Your task to perform on an android device: see sites visited before in the chrome app Image 0: 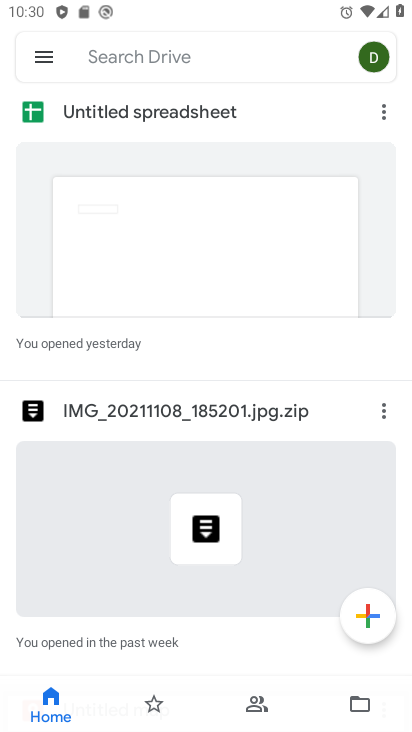
Step 0: press home button
Your task to perform on an android device: see sites visited before in the chrome app Image 1: 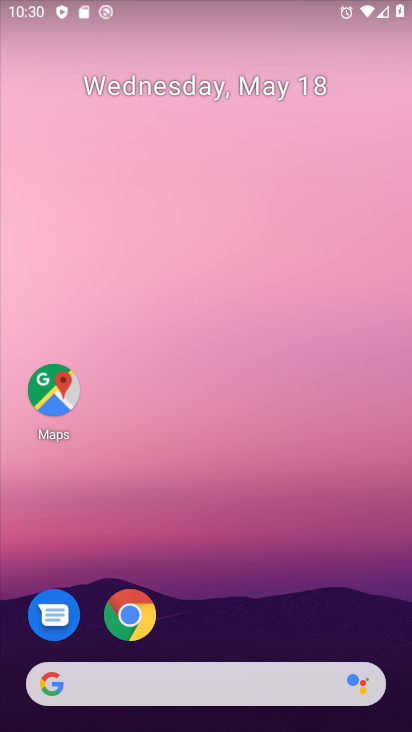
Step 1: click (121, 617)
Your task to perform on an android device: see sites visited before in the chrome app Image 2: 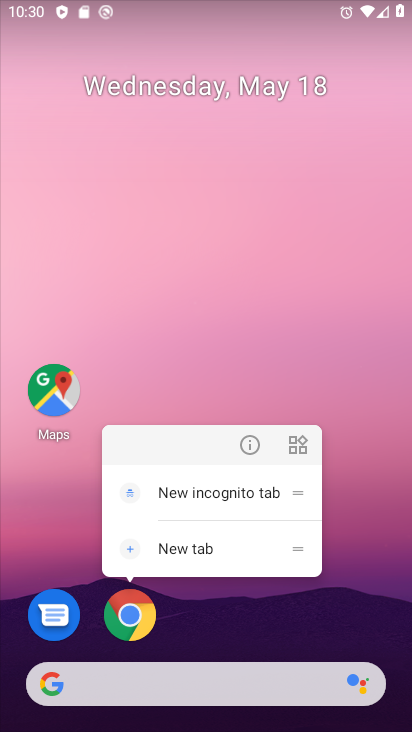
Step 2: click (121, 617)
Your task to perform on an android device: see sites visited before in the chrome app Image 3: 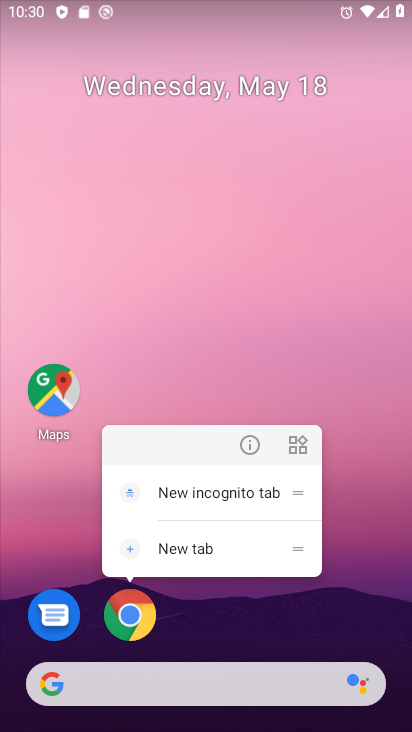
Step 3: click (121, 617)
Your task to perform on an android device: see sites visited before in the chrome app Image 4: 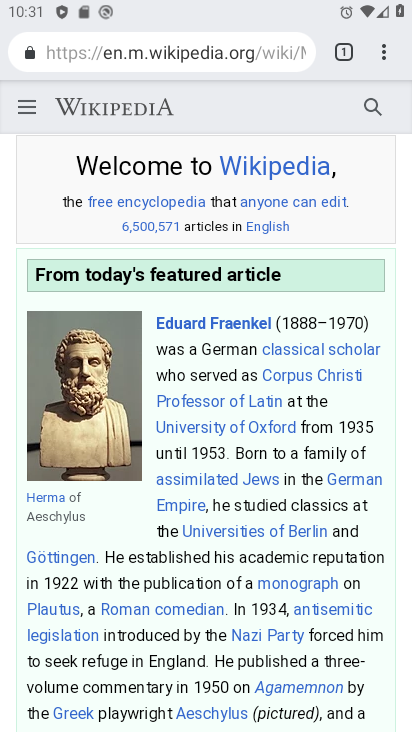
Step 4: click (343, 55)
Your task to perform on an android device: see sites visited before in the chrome app Image 5: 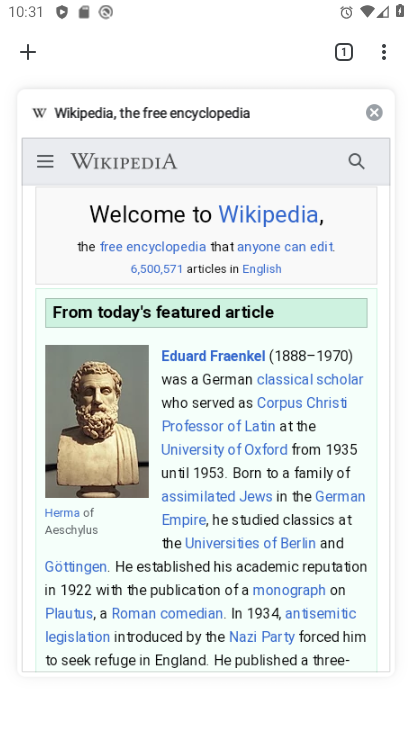
Step 5: click (343, 55)
Your task to perform on an android device: see sites visited before in the chrome app Image 6: 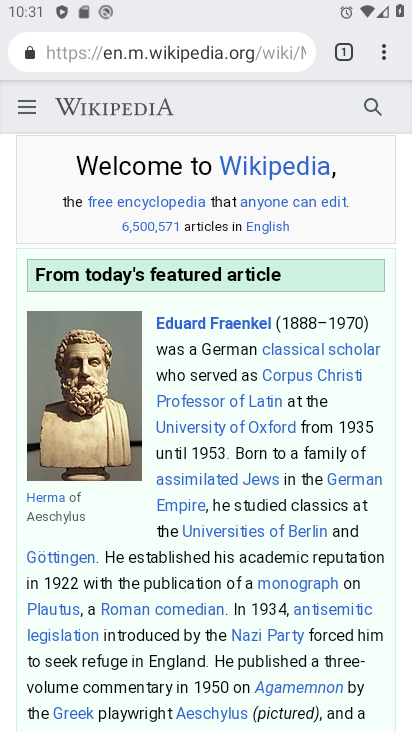
Step 6: click (345, 48)
Your task to perform on an android device: see sites visited before in the chrome app Image 7: 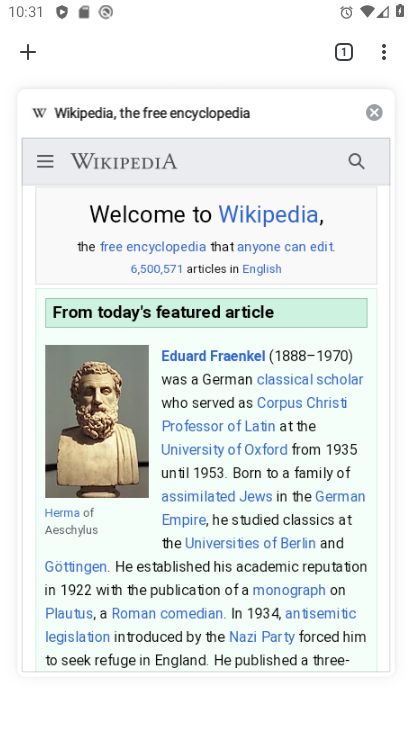
Step 7: click (373, 117)
Your task to perform on an android device: see sites visited before in the chrome app Image 8: 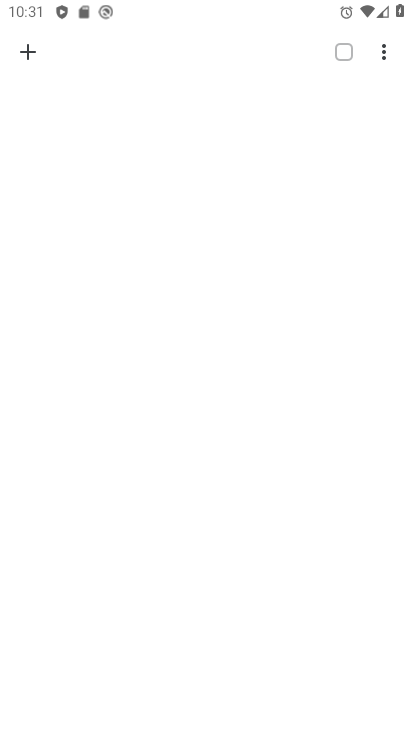
Step 8: click (29, 51)
Your task to perform on an android device: see sites visited before in the chrome app Image 9: 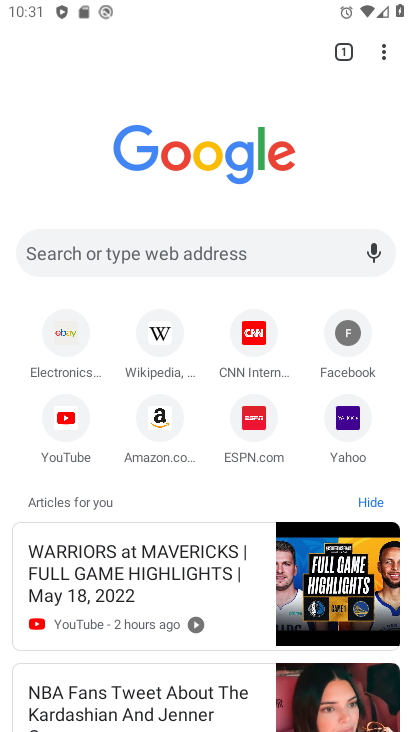
Step 9: task complete